Your task to perform on an android device: Go to battery settings Image 0: 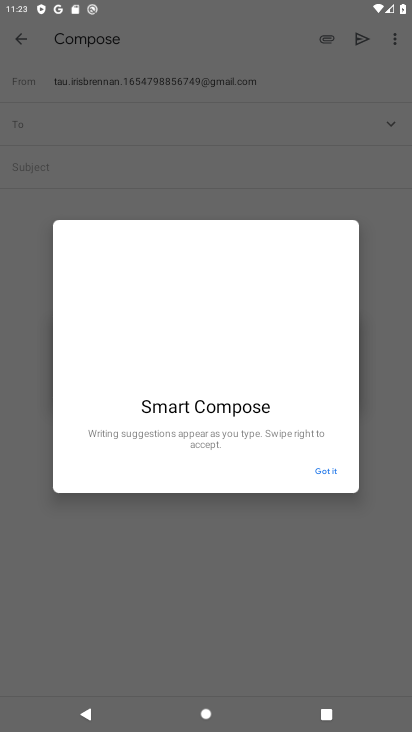
Step 0: press home button
Your task to perform on an android device: Go to battery settings Image 1: 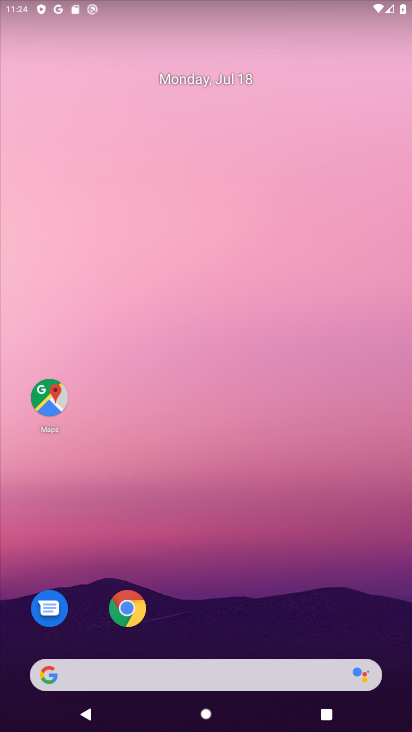
Step 1: drag from (253, 600) to (246, 87)
Your task to perform on an android device: Go to battery settings Image 2: 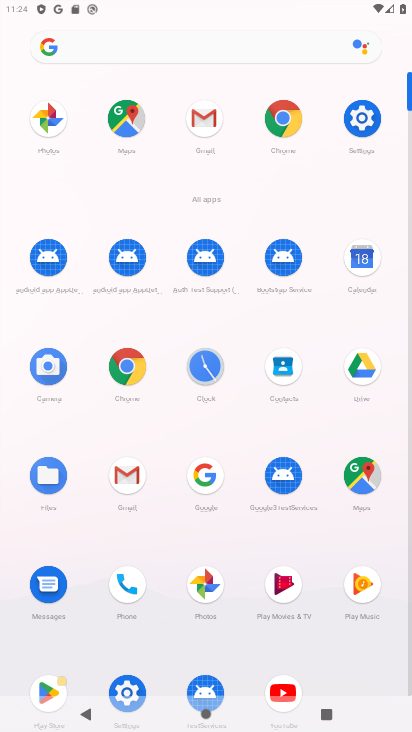
Step 2: click (364, 111)
Your task to perform on an android device: Go to battery settings Image 3: 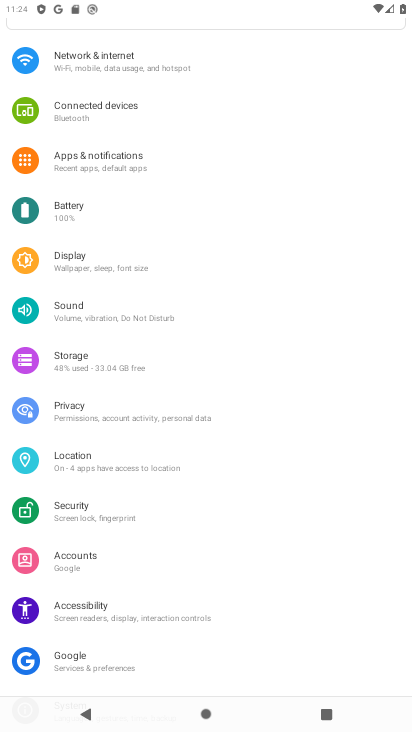
Step 3: click (85, 207)
Your task to perform on an android device: Go to battery settings Image 4: 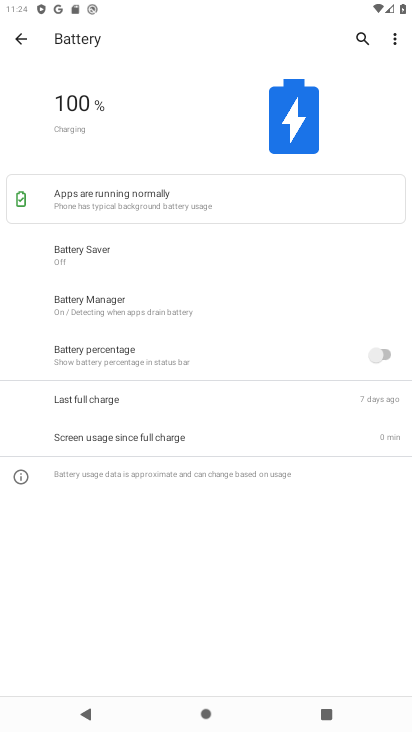
Step 4: task complete